Your task to perform on an android device: Is it going to rain today? Image 0: 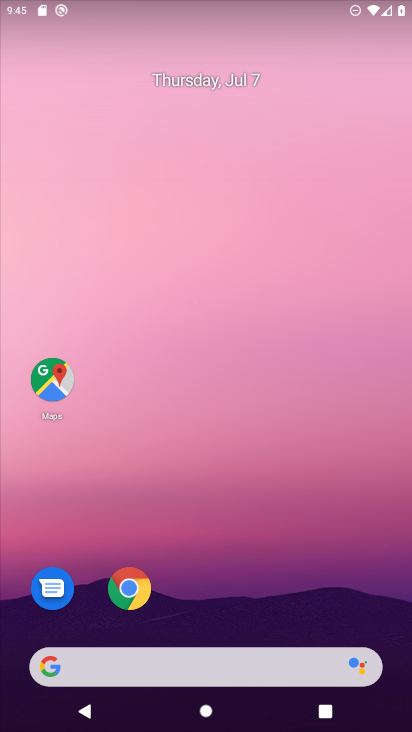
Step 0: click (291, 651)
Your task to perform on an android device: Is it going to rain today? Image 1: 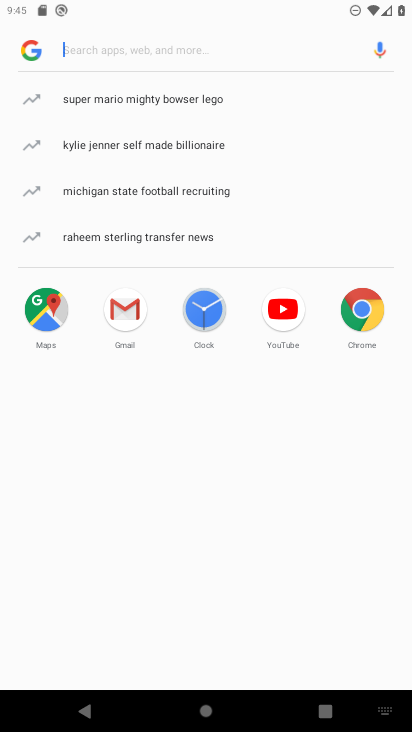
Step 1: type "Is it going to rain today?"
Your task to perform on an android device: Is it going to rain today? Image 2: 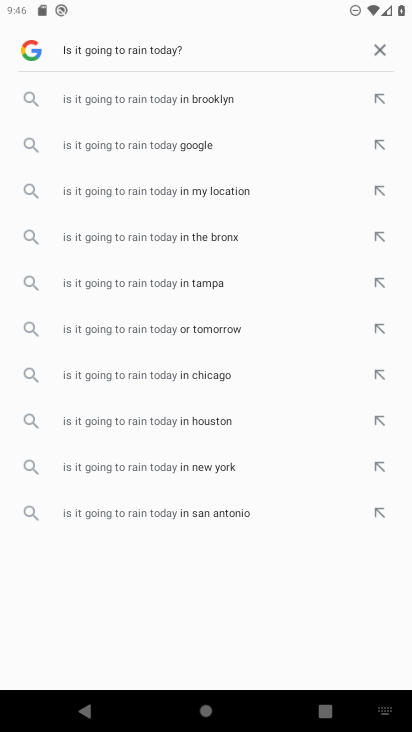
Step 2: click (237, 147)
Your task to perform on an android device: Is it going to rain today? Image 3: 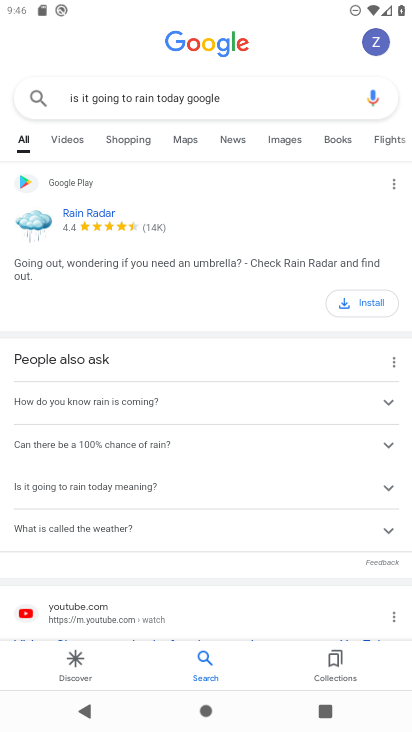
Step 3: task complete